Your task to perform on an android device: toggle notification dots Image 0: 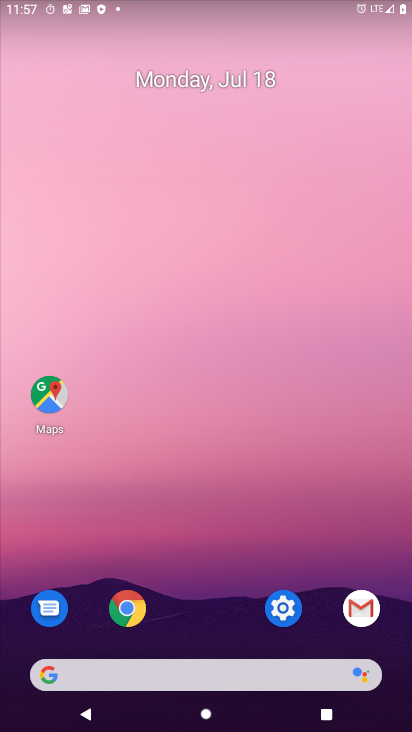
Step 0: click (288, 610)
Your task to perform on an android device: toggle notification dots Image 1: 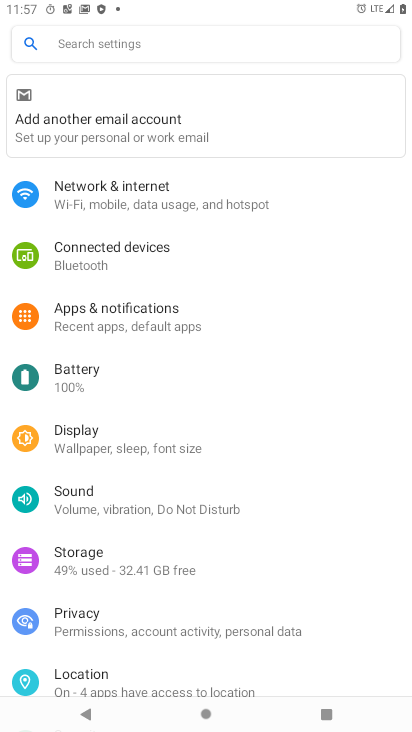
Step 1: click (89, 49)
Your task to perform on an android device: toggle notification dots Image 2: 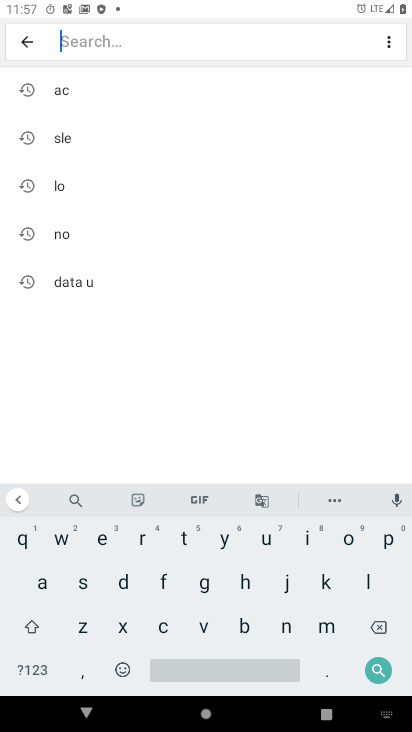
Step 2: click (81, 240)
Your task to perform on an android device: toggle notification dots Image 3: 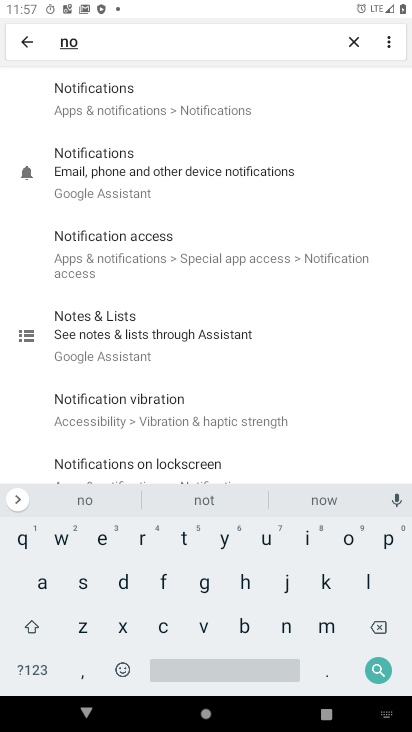
Step 3: click (125, 101)
Your task to perform on an android device: toggle notification dots Image 4: 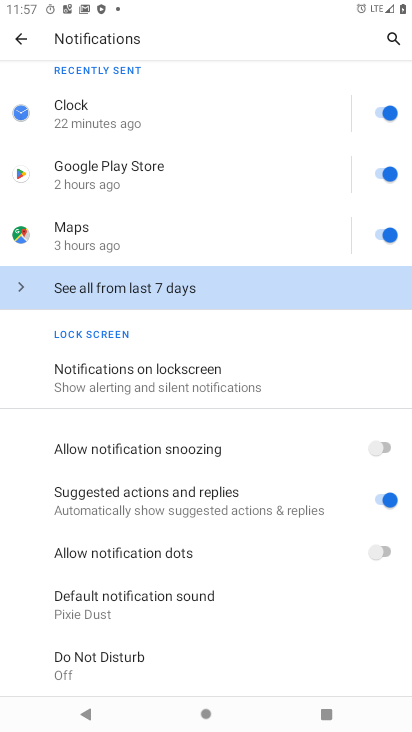
Step 4: click (351, 553)
Your task to perform on an android device: toggle notification dots Image 5: 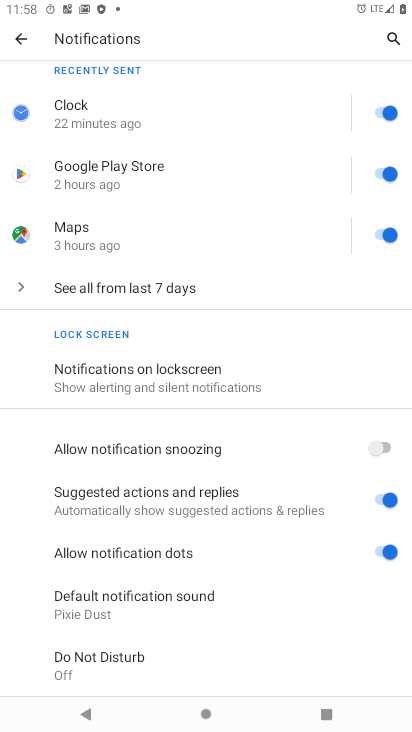
Step 5: task complete